Your task to perform on an android device: Open privacy settings Image 0: 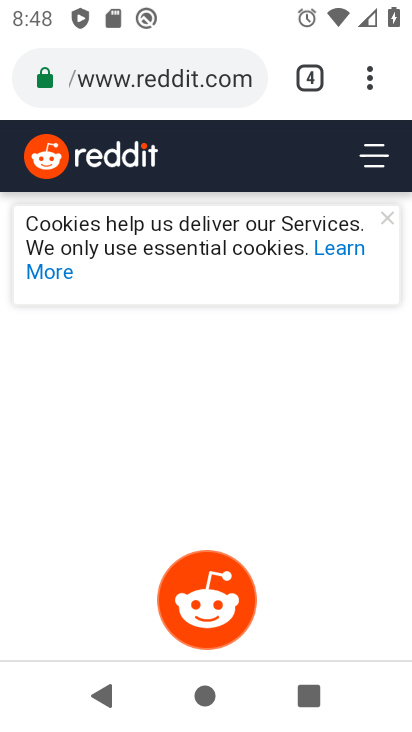
Step 0: press back button
Your task to perform on an android device: Open privacy settings Image 1: 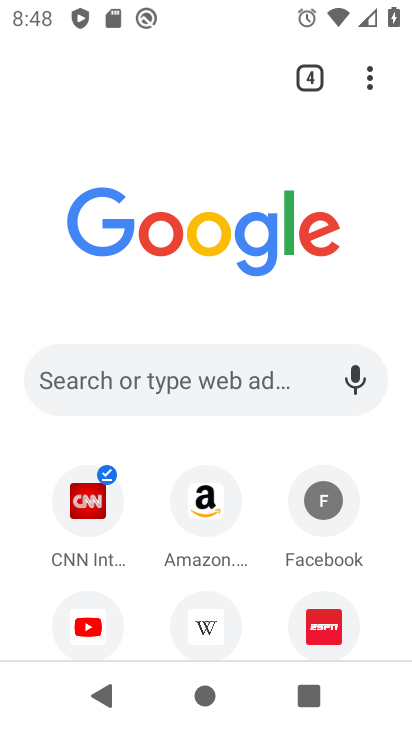
Step 1: press back button
Your task to perform on an android device: Open privacy settings Image 2: 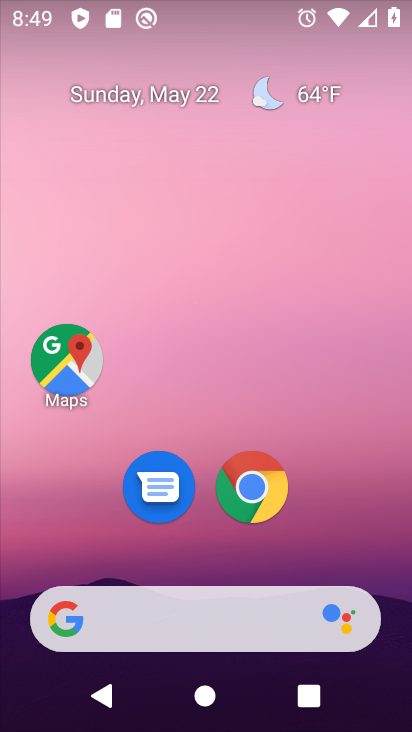
Step 2: click (246, 488)
Your task to perform on an android device: Open privacy settings Image 3: 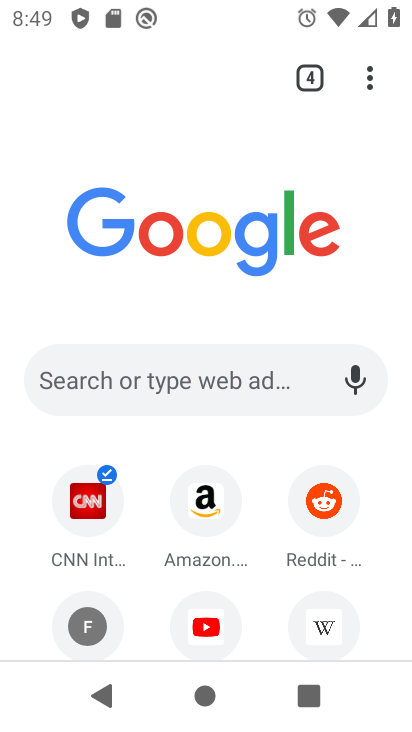
Step 3: drag from (370, 78) to (127, 550)
Your task to perform on an android device: Open privacy settings Image 4: 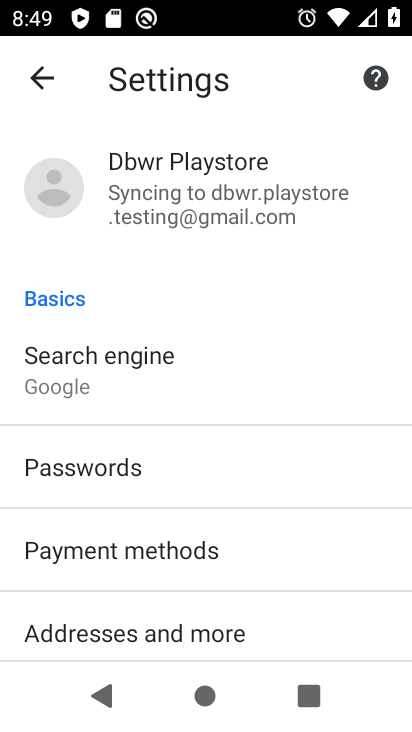
Step 4: click (213, 210)
Your task to perform on an android device: Open privacy settings Image 5: 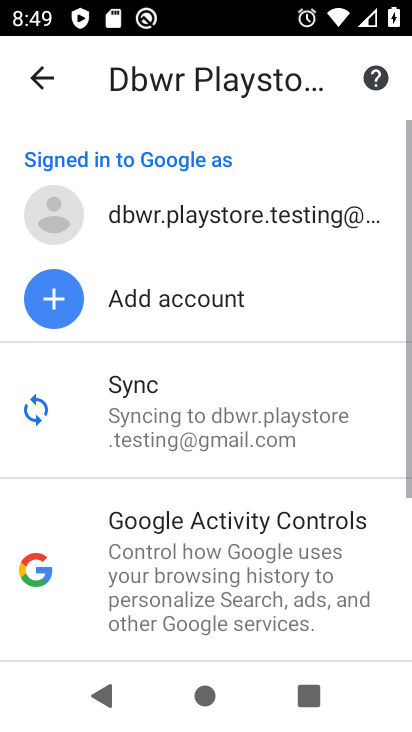
Step 5: drag from (196, 426) to (277, 131)
Your task to perform on an android device: Open privacy settings Image 6: 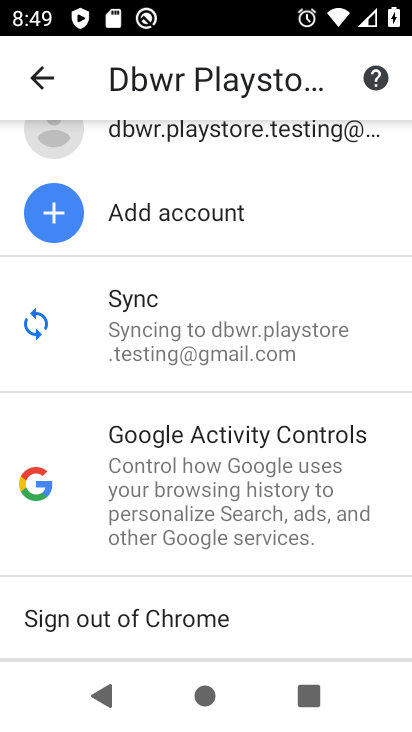
Step 6: click (38, 69)
Your task to perform on an android device: Open privacy settings Image 7: 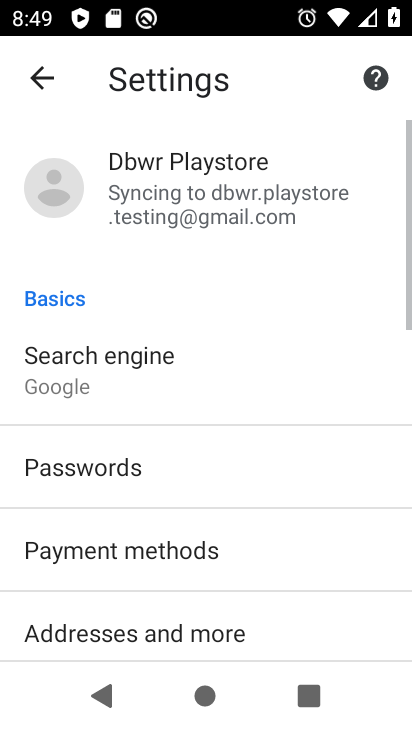
Step 7: drag from (182, 596) to (282, 90)
Your task to perform on an android device: Open privacy settings Image 8: 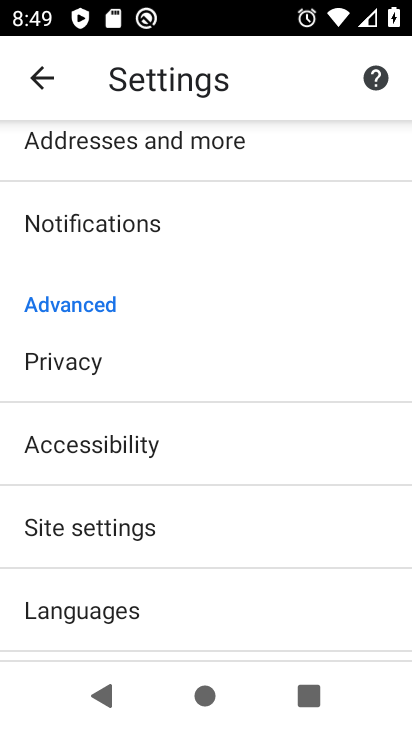
Step 8: click (82, 356)
Your task to perform on an android device: Open privacy settings Image 9: 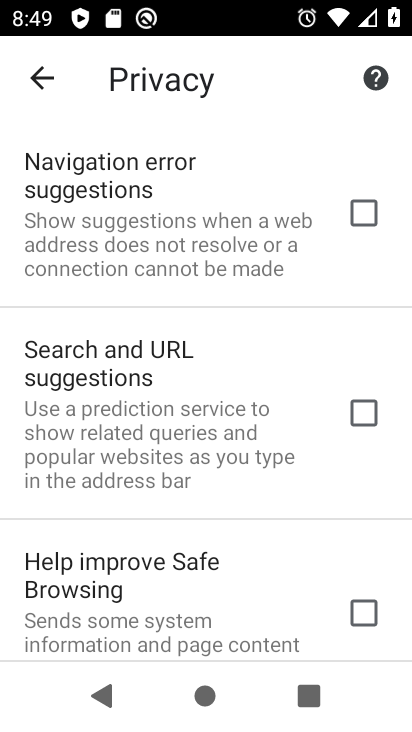
Step 9: task complete